Your task to perform on an android device: Add "macbook" to the cart on target.com, then select checkout. Image 0: 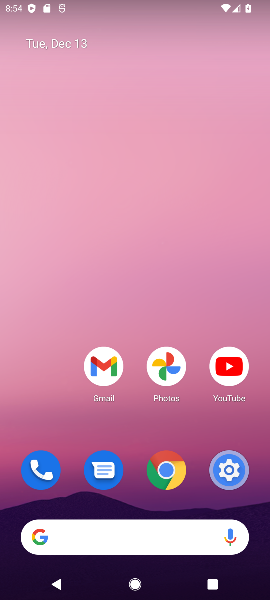
Step 0: press home button
Your task to perform on an android device: Add "macbook" to the cart on target.com, then select checkout. Image 1: 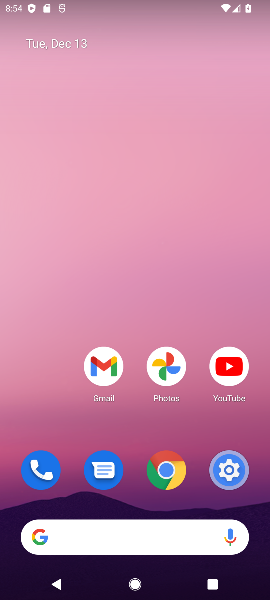
Step 1: click (56, 535)
Your task to perform on an android device: Add "macbook" to the cart on target.com, then select checkout. Image 2: 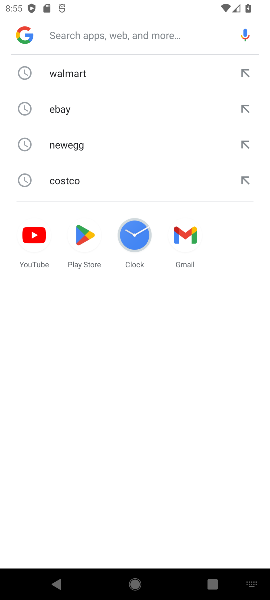
Step 2: type "target.com"
Your task to perform on an android device: Add "macbook" to the cart on target.com, then select checkout. Image 3: 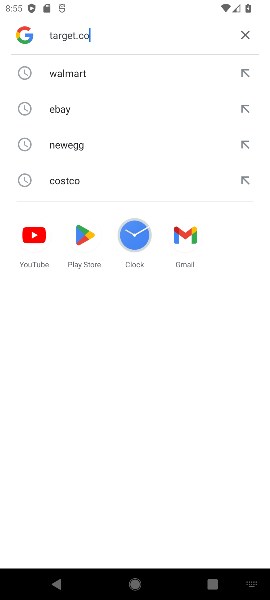
Step 3: press enter
Your task to perform on an android device: Add "macbook" to the cart on target.com, then select checkout. Image 4: 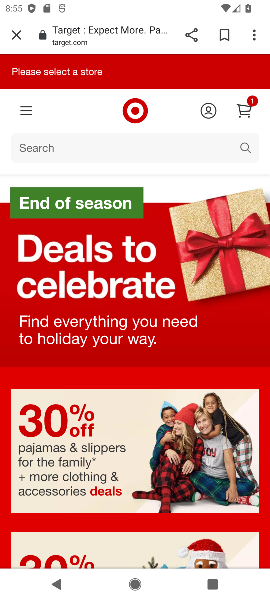
Step 4: click (63, 143)
Your task to perform on an android device: Add "macbook" to the cart on target.com, then select checkout. Image 5: 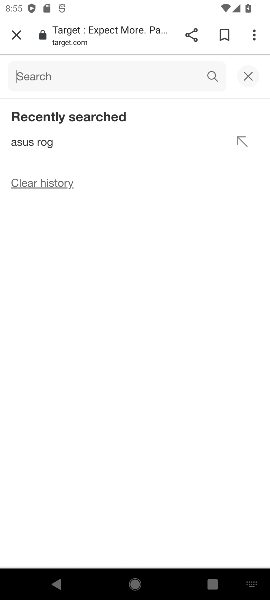
Step 5: type "macbook"
Your task to perform on an android device: Add "macbook" to the cart on target.com, then select checkout. Image 6: 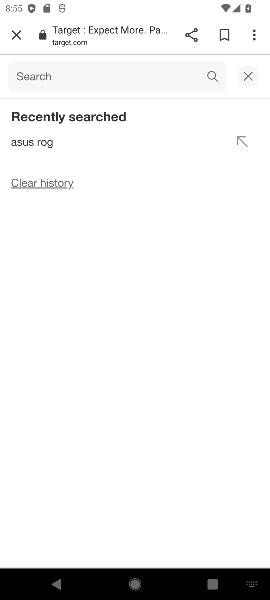
Step 6: press enter
Your task to perform on an android device: Add "macbook" to the cart on target.com, then select checkout. Image 7: 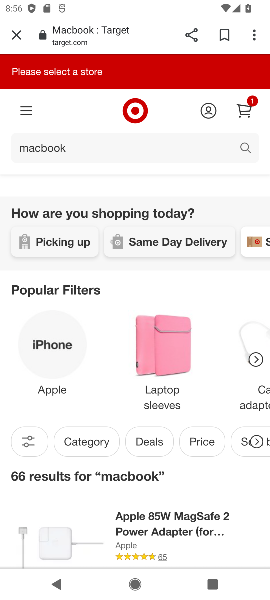
Step 7: drag from (156, 531) to (160, 230)
Your task to perform on an android device: Add "macbook" to the cart on target.com, then select checkout. Image 8: 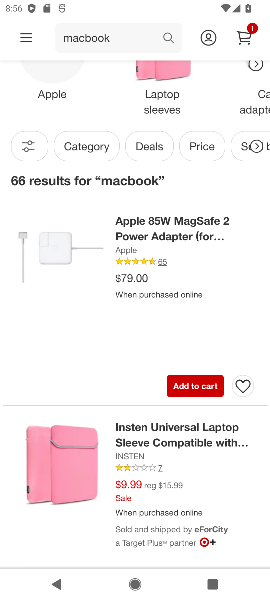
Step 8: click (193, 384)
Your task to perform on an android device: Add "macbook" to the cart on target.com, then select checkout. Image 9: 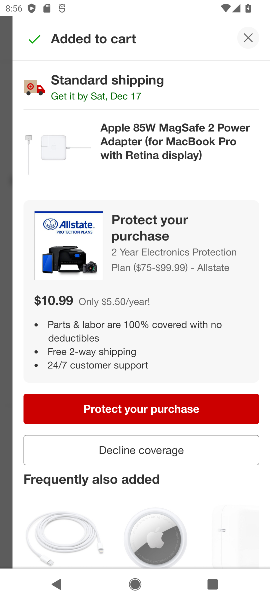
Step 9: click (111, 415)
Your task to perform on an android device: Add "macbook" to the cart on target.com, then select checkout. Image 10: 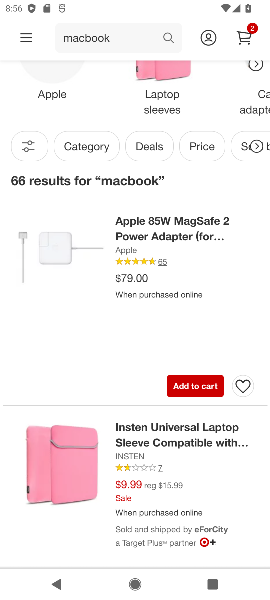
Step 10: click (240, 30)
Your task to perform on an android device: Add "macbook" to the cart on target.com, then select checkout. Image 11: 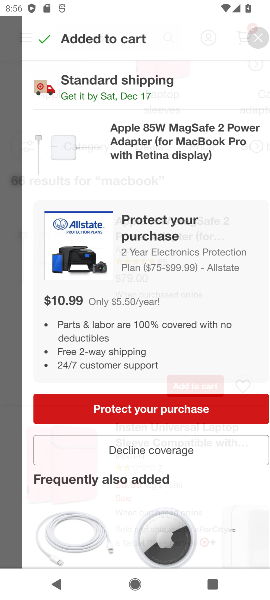
Step 11: click (109, 412)
Your task to perform on an android device: Add "macbook" to the cart on target.com, then select checkout. Image 12: 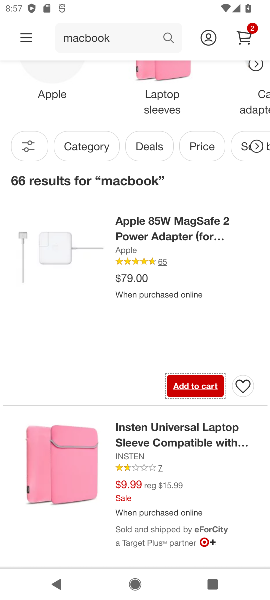
Step 12: task complete